Your task to perform on an android device: turn on data saver in the chrome app Image 0: 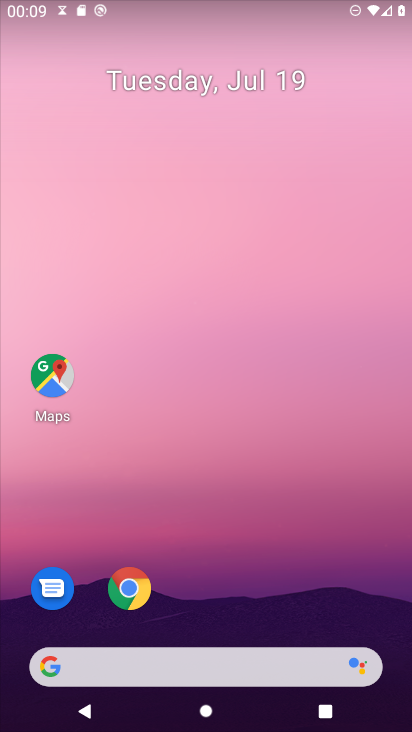
Step 0: press home button
Your task to perform on an android device: turn on data saver in the chrome app Image 1: 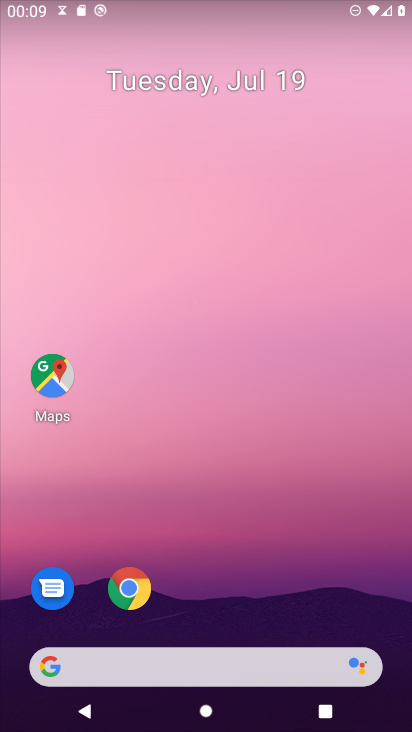
Step 1: click (131, 590)
Your task to perform on an android device: turn on data saver in the chrome app Image 2: 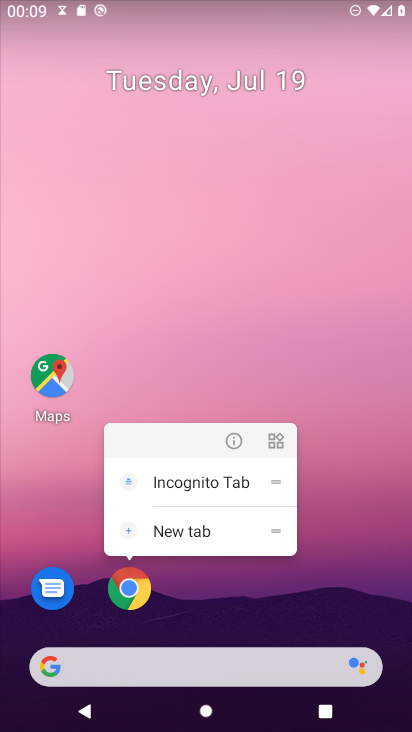
Step 2: click (137, 574)
Your task to perform on an android device: turn on data saver in the chrome app Image 3: 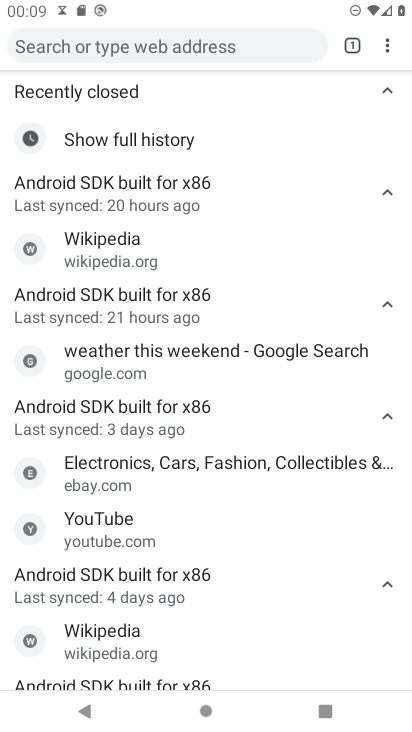
Step 3: drag from (381, 44) to (246, 384)
Your task to perform on an android device: turn on data saver in the chrome app Image 4: 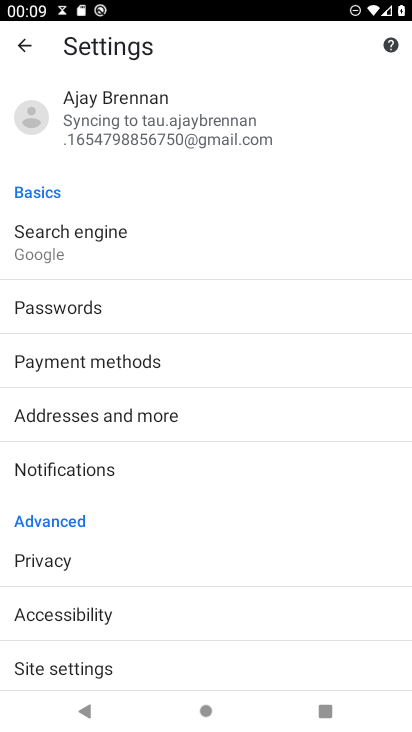
Step 4: drag from (210, 525) to (272, 218)
Your task to perform on an android device: turn on data saver in the chrome app Image 5: 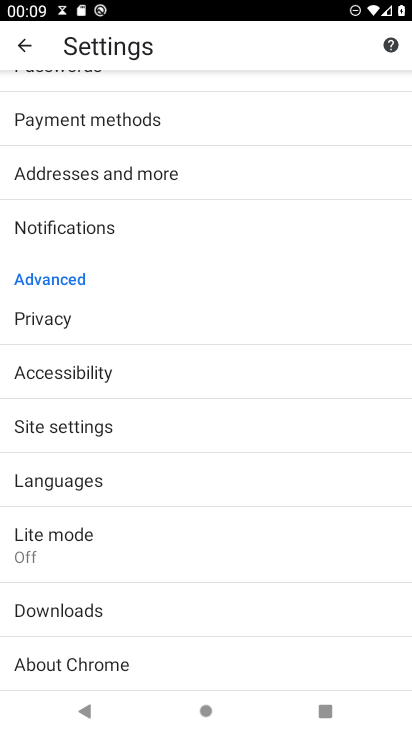
Step 5: click (118, 544)
Your task to perform on an android device: turn on data saver in the chrome app Image 6: 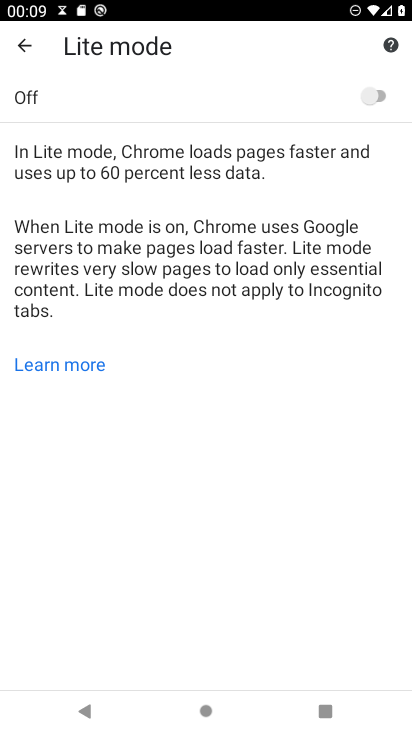
Step 6: click (377, 96)
Your task to perform on an android device: turn on data saver in the chrome app Image 7: 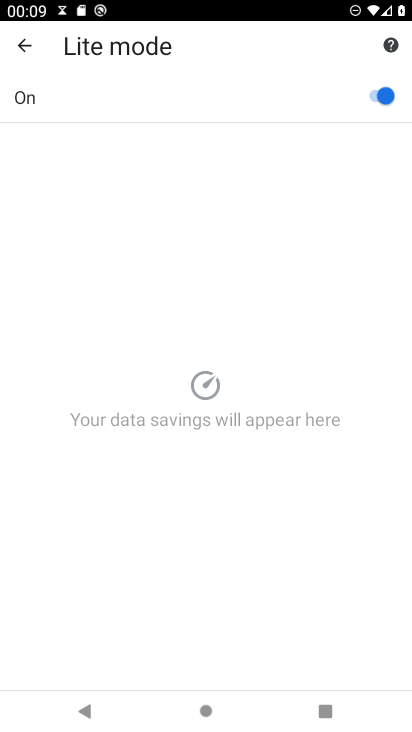
Step 7: task complete